Your task to perform on an android device: What's the weather like in Los Angeles? Image 0: 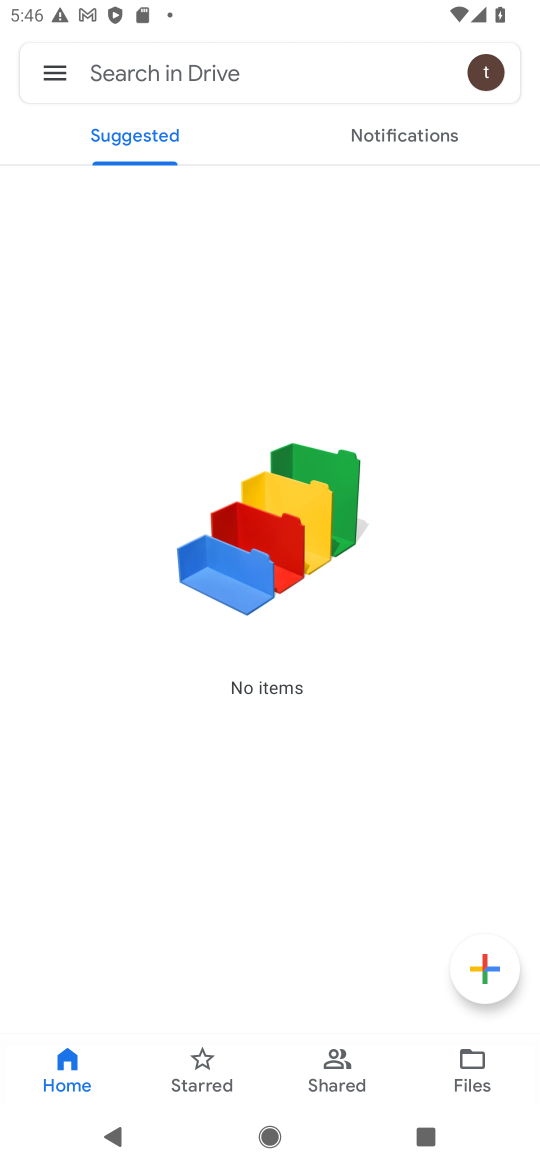
Step 0: press home button
Your task to perform on an android device: What's the weather like in Los Angeles? Image 1: 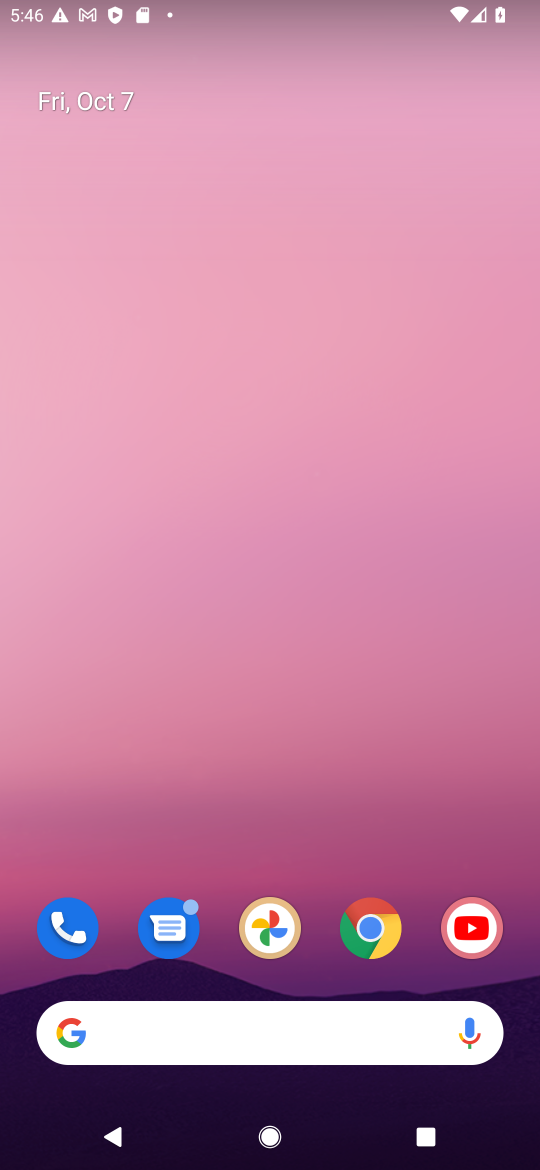
Step 1: drag from (301, 950) to (341, 690)
Your task to perform on an android device: What's the weather like in Los Angeles? Image 2: 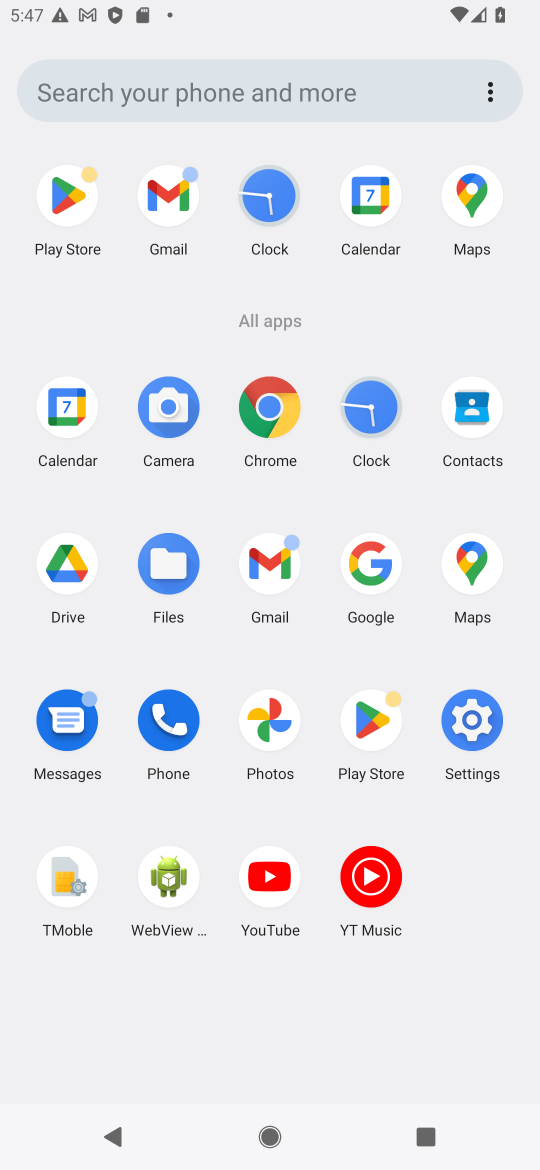
Step 2: click (270, 460)
Your task to perform on an android device: What's the weather like in Los Angeles? Image 3: 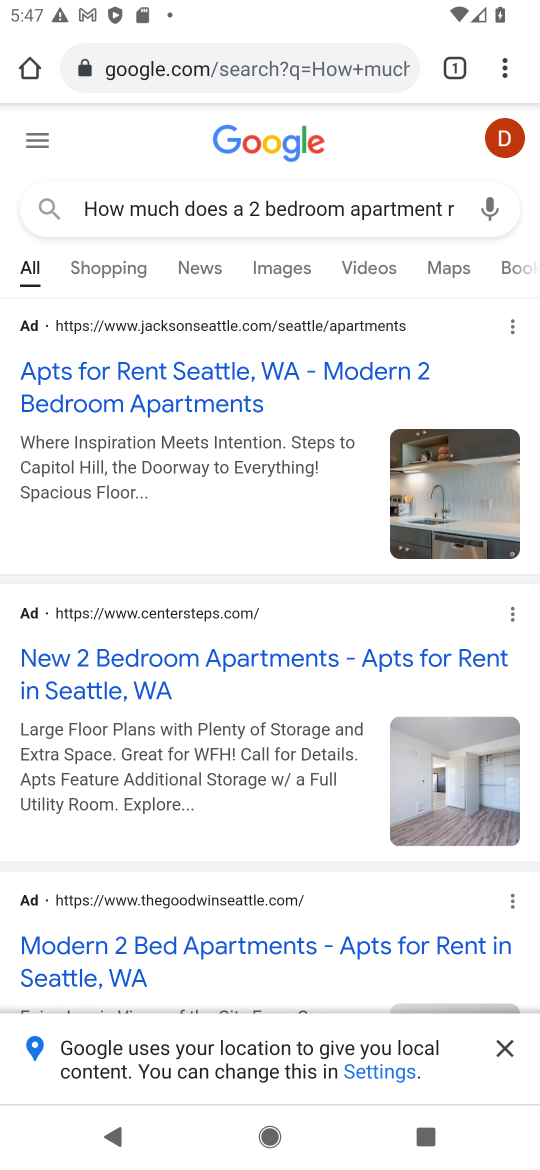
Step 3: click (291, 73)
Your task to perform on an android device: What's the weather like in Los Angeles? Image 4: 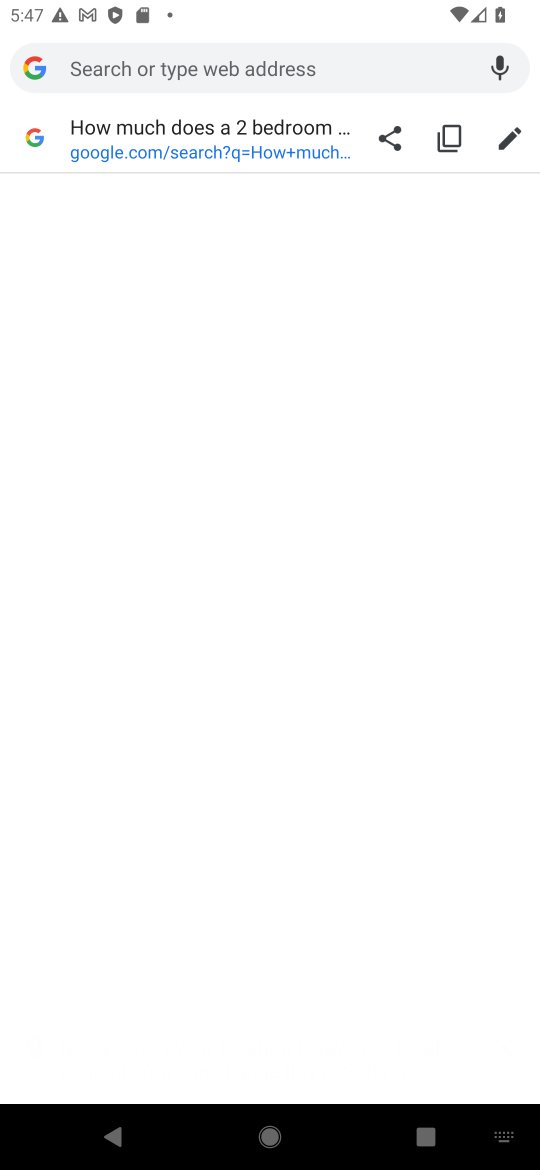
Step 4: type "What's the weather like in Los Angeles?"
Your task to perform on an android device: What's the weather like in Los Angeles? Image 5: 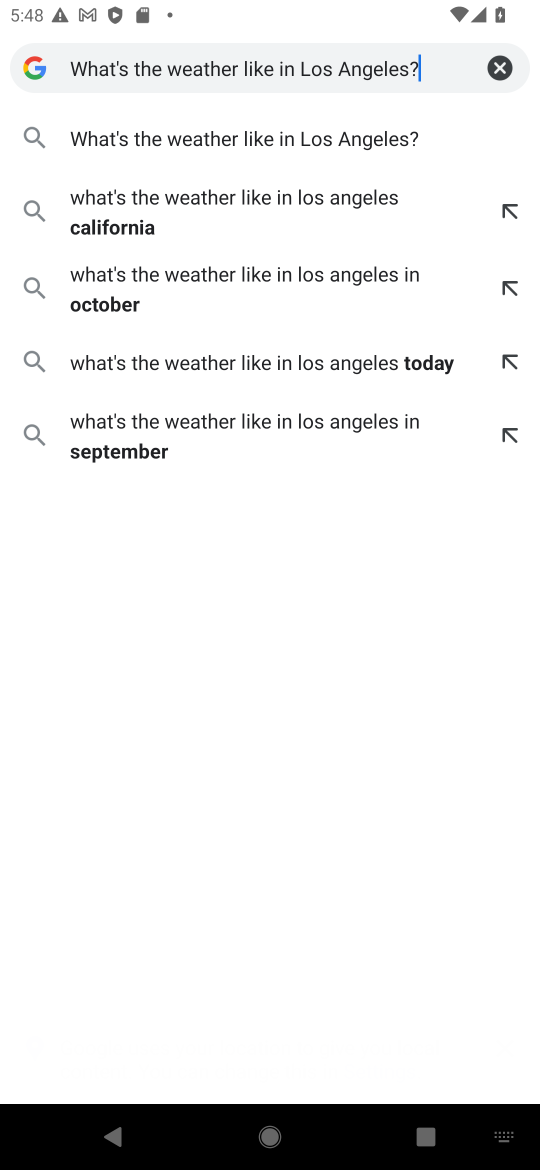
Step 5: click (266, 149)
Your task to perform on an android device: What's the weather like in Los Angeles? Image 6: 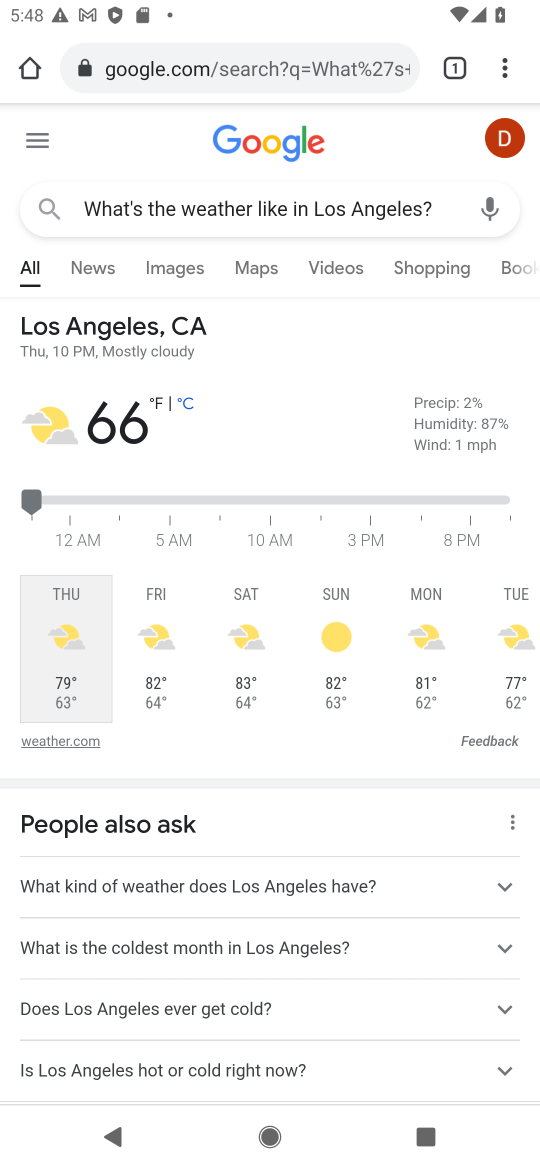
Step 6: task complete